Your task to perform on an android device: see tabs open on other devices in the chrome app Image 0: 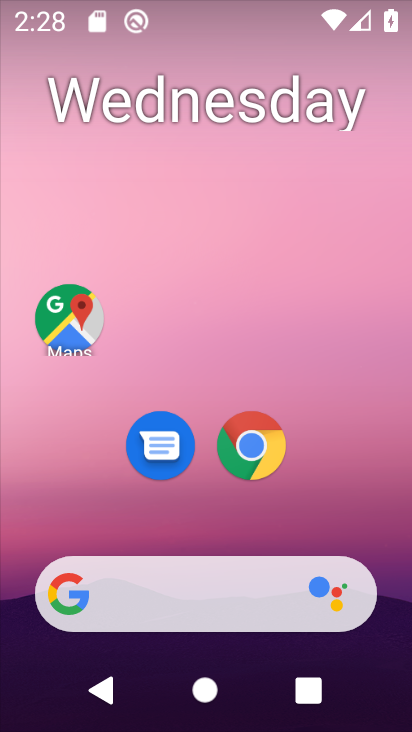
Step 0: click (255, 465)
Your task to perform on an android device: see tabs open on other devices in the chrome app Image 1: 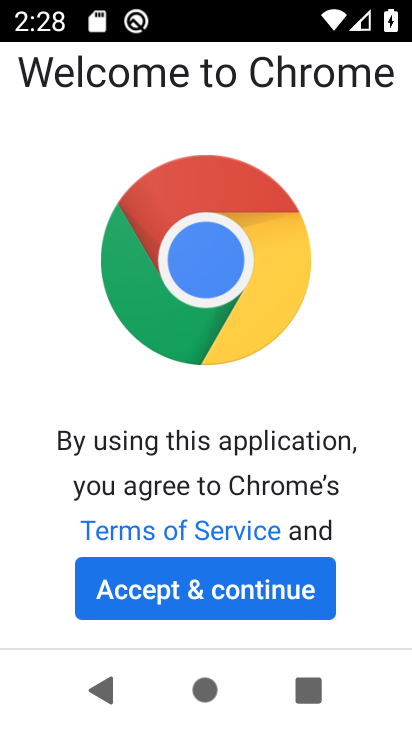
Step 1: click (209, 587)
Your task to perform on an android device: see tabs open on other devices in the chrome app Image 2: 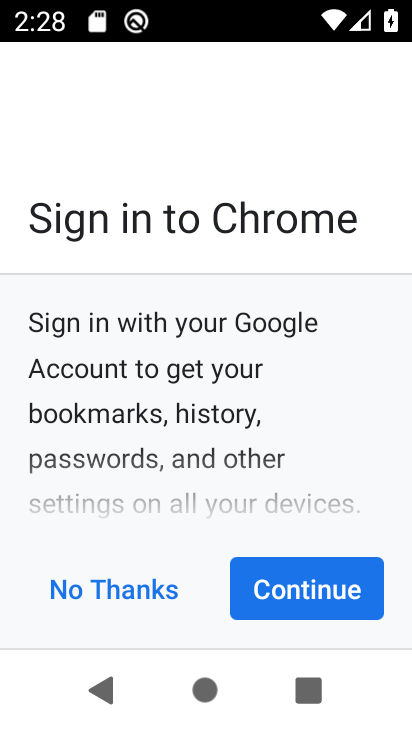
Step 2: click (117, 598)
Your task to perform on an android device: see tabs open on other devices in the chrome app Image 3: 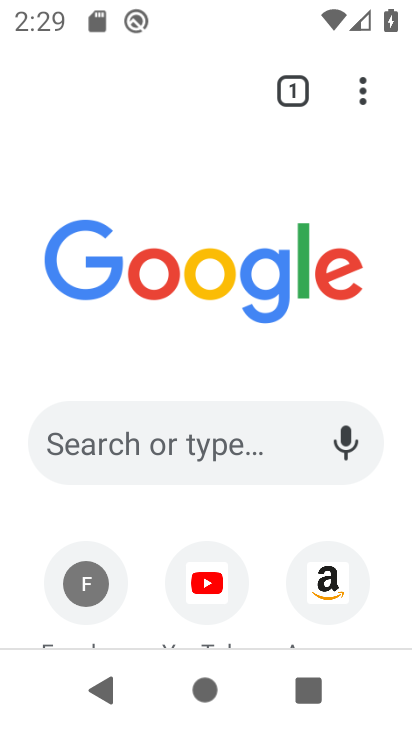
Step 3: click (363, 99)
Your task to perform on an android device: see tabs open on other devices in the chrome app Image 4: 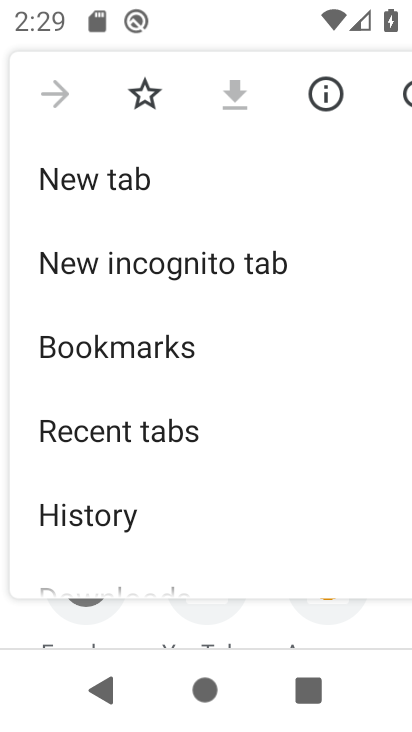
Step 4: click (111, 428)
Your task to perform on an android device: see tabs open on other devices in the chrome app Image 5: 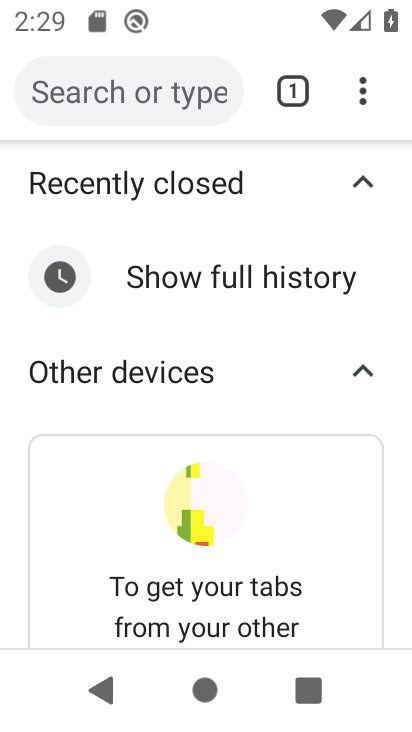
Step 5: drag from (248, 522) to (214, 308)
Your task to perform on an android device: see tabs open on other devices in the chrome app Image 6: 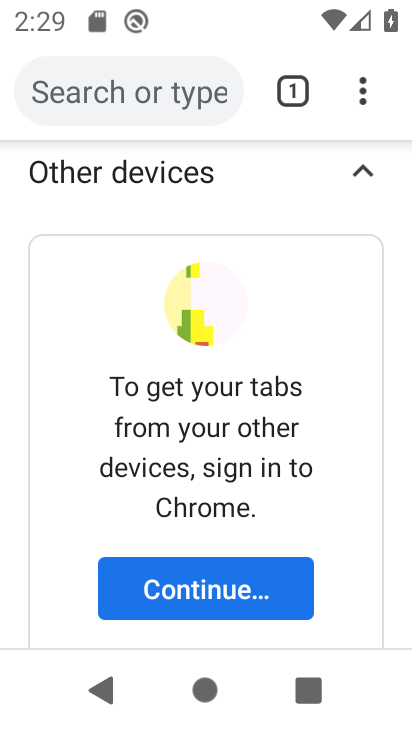
Step 6: click (204, 586)
Your task to perform on an android device: see tabs open on other devices in the chrome app Image 7: 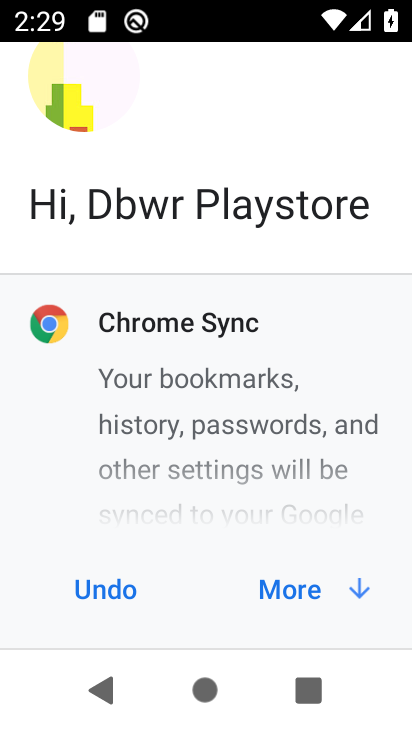
Step 7: click (274, 598)
Your task to perform on an android device: see tabs open on other devices in the chrome app Image 8: 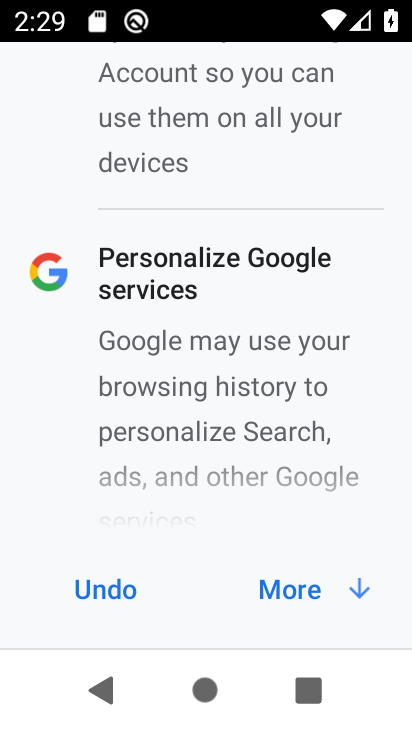
Step 8: click (274, 598)
Your task to perform on an android device: see tabs open on other devices in the chrome app Image 9: 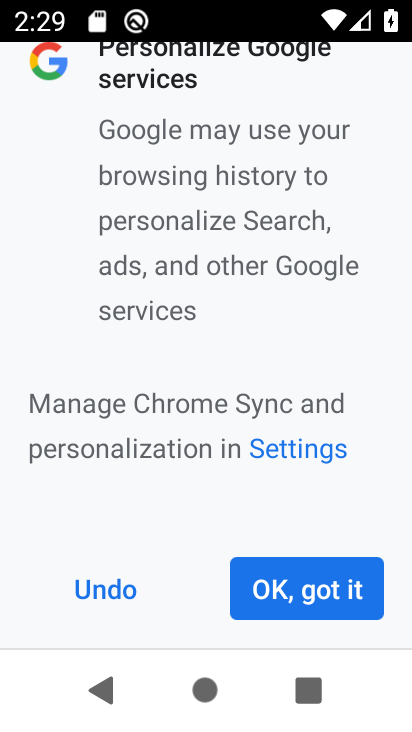
Step 9: click (274, 598)
Your task to perform on an android device: see tabs open on other devices in the chrome app Image 10: 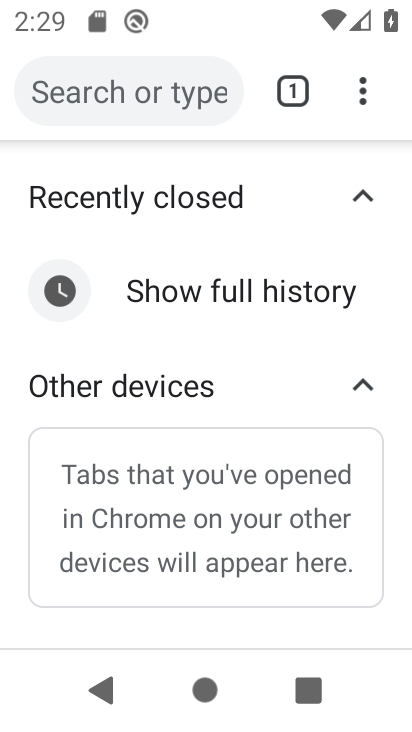
Step 10: task complete